Your task to perform on an android device: turn notification dots off Image 0: 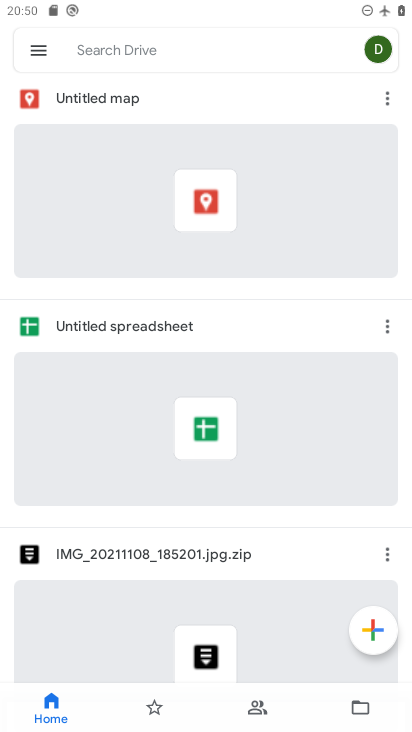
Step 0: press home button
Your task to perform on an android device: turn notification dots off Image 1: 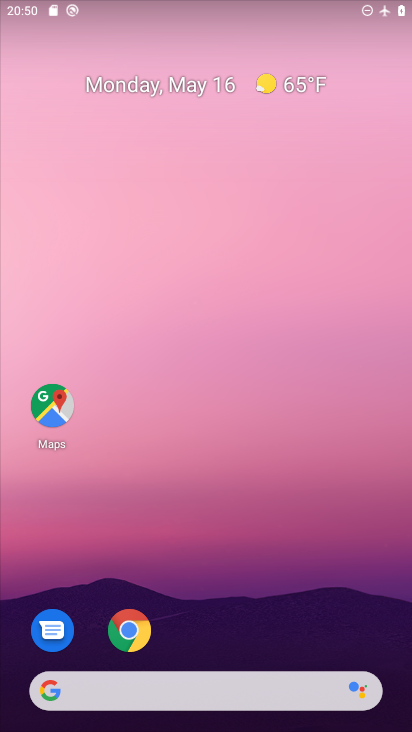
Step 1: drag from (242, 614) to (262, 95)
Your task to perform on an android device: turn notification dots off Image 2: 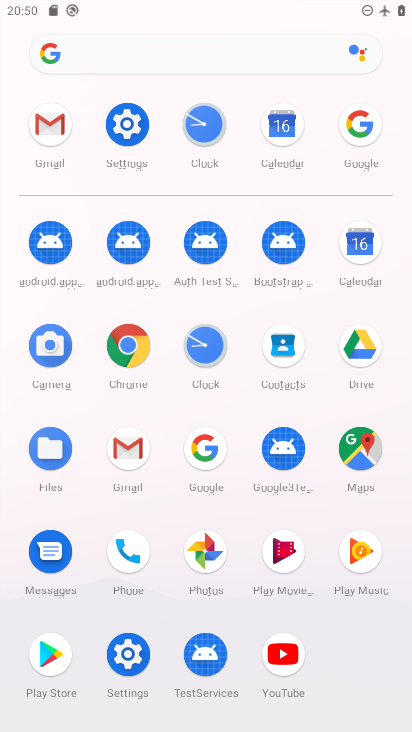
Step 2: click (131, 109)
Your task to perform on an android device: turn notification dots off Image 3: 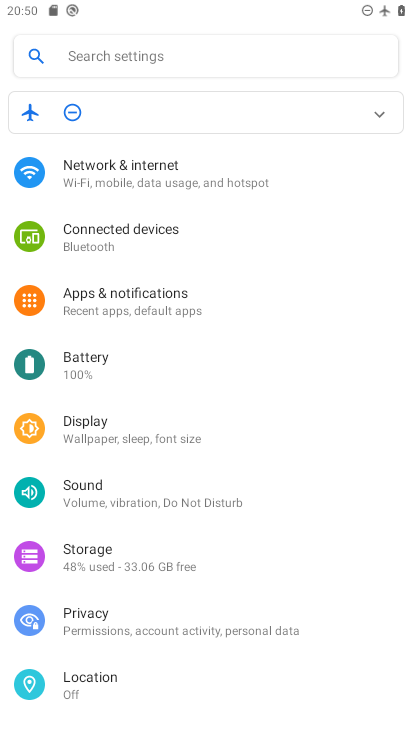
Step 3: click (167, 311)
Your task to perform on an android device: turn notification dots off Image 4: 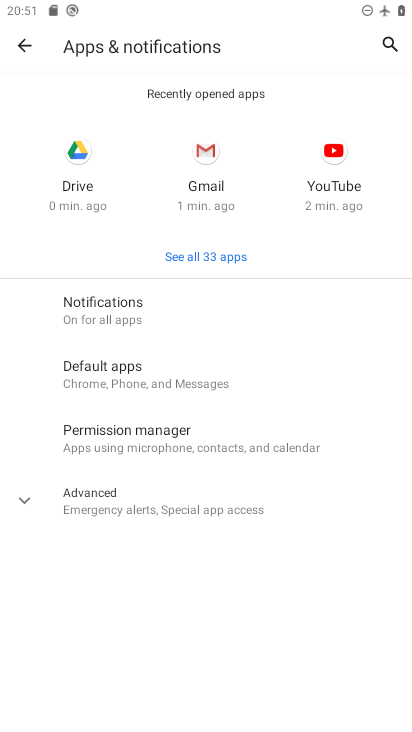
Step 4: click (152, 328)
Your task to perform on an android device: turn notification dots off Image 5: 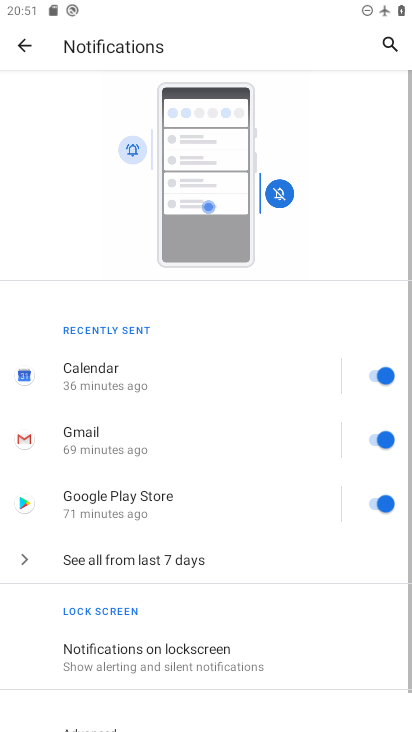
Step 5: drag from (220, 599) to (233, 316)
Your task to perform on an android device: turn notification dots off Image 6: 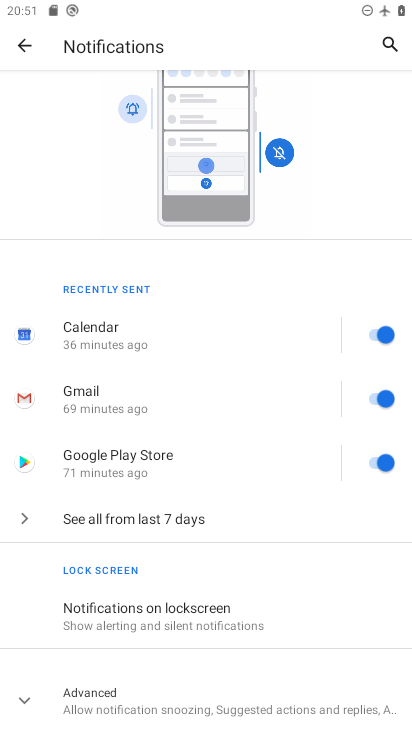
Step 6: click (169, 708)
Your task to perform on an android device: turn notification dots off Image 7: 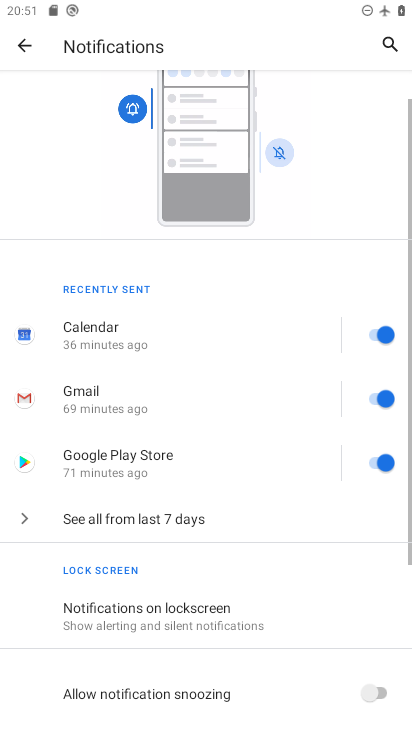
Step 7: drag from (209, 673) to (226, 357)
Your task to perform on an android device: turn notification dots off Image 8: 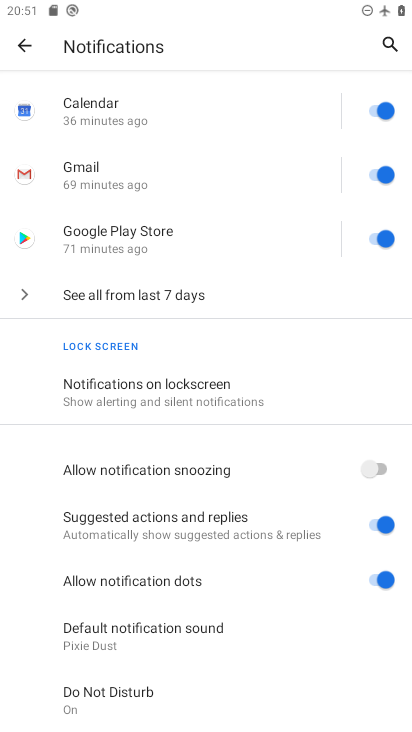
Step 8: click (373, 582)
Your task to perform on an android device: turn notification dots off Image 9: 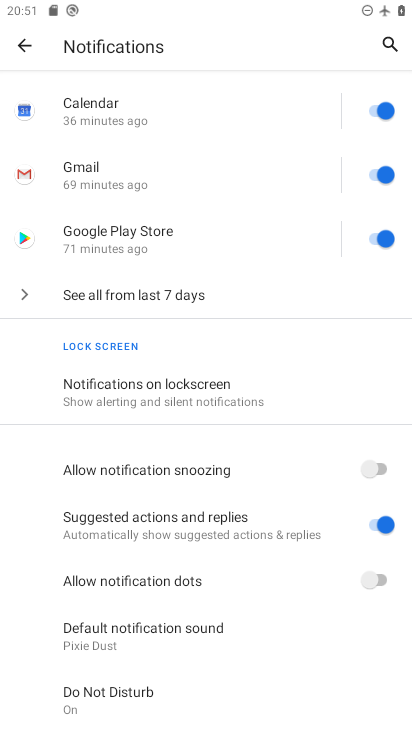
Step 9: task complete